Your task to perform on an android device: Open Wikipedia Image 0: 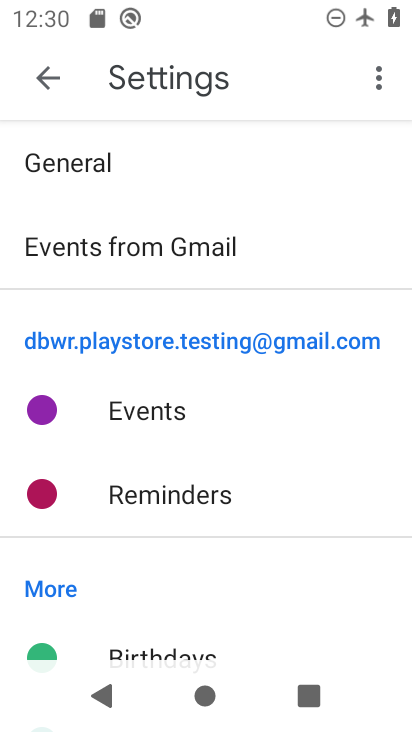
Step 0: press home button
Your task to perform on an android device: Open Wikipedia Image 1: 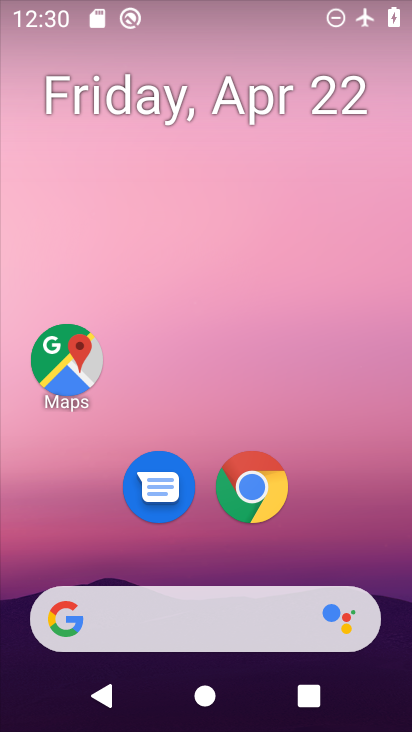
Step 1: drag from (202, 549) to (237, 122)
Your task to perform on an android device: Open Wikipedia Image 2: 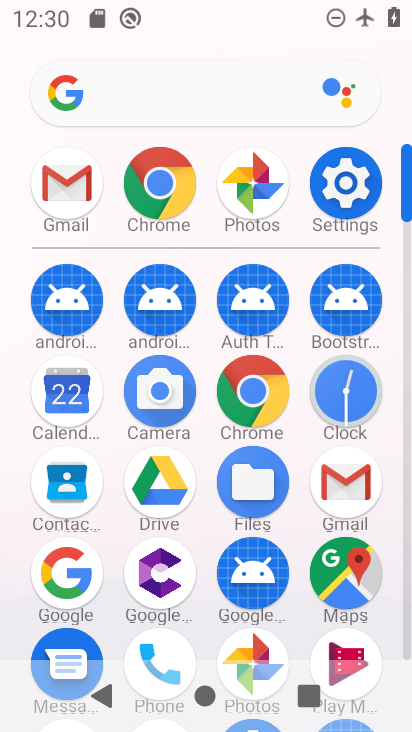
Step 2: click (135, 176)
Your task to perform on an android device: Open Wikipedia Image 3: 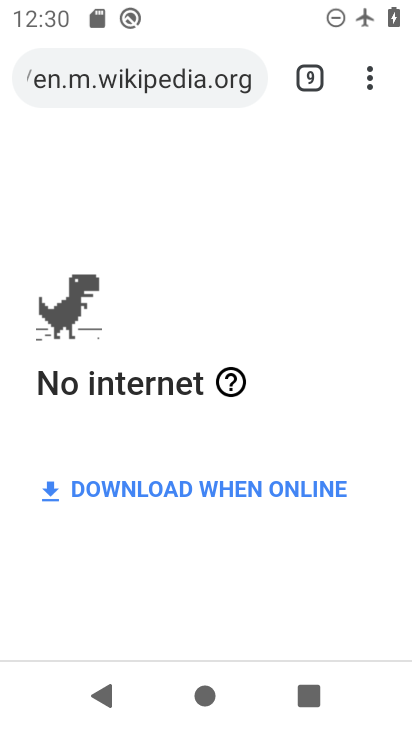
Step 3: click (338, 72)
Your task to perform on an android device: Open Wikipedia Image 4: 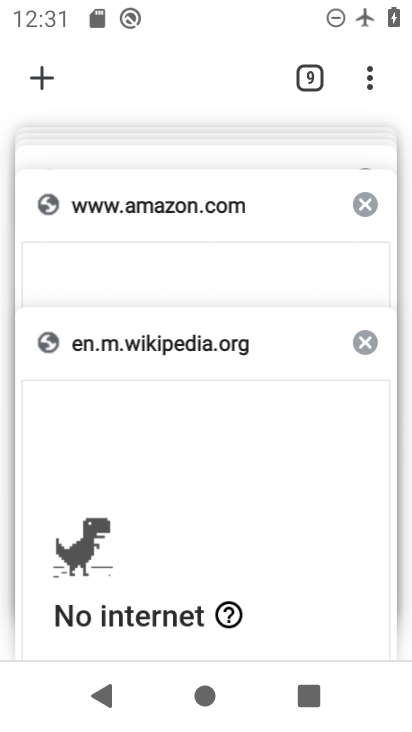
Step 4: click (327, 450)
Your task to perform on an android device: Open Wikipedia Image 5: 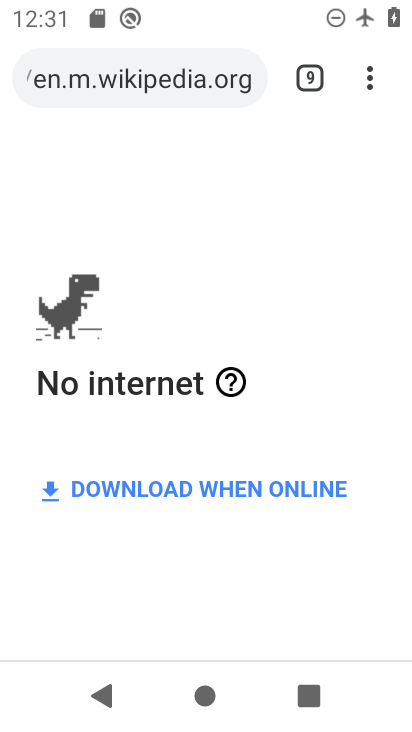
Step 5: click (354, 77)
Your task to perform on an android device: Open Wikipedia Image 6: 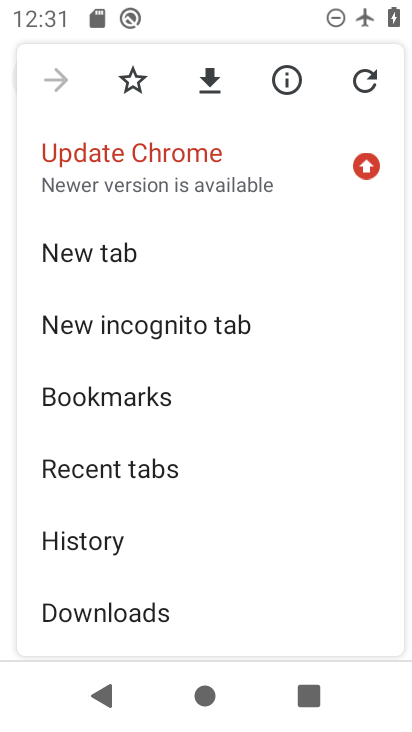
Step 6: click (164, 262)
Your task to perform on an android device: Open Wikipedia Image 7: 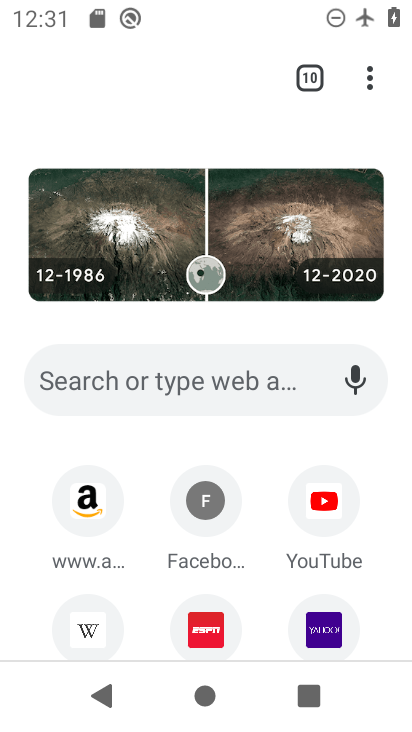
Step 7: click (86, 610)
Your task to perform on an android device: Open Wikipedia Image 8: 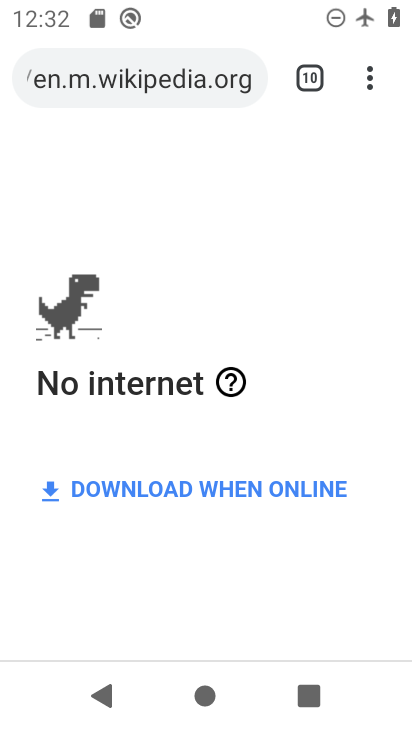
Step 8: task complete